Your task to perform on an android device: Open Google Maps and go to "Timeline" Image 0: 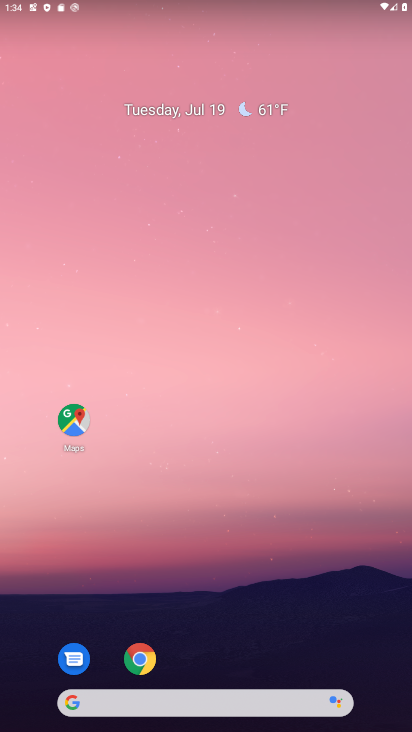
Step 0: drag from (274, 644) to (205, 204)
Your task to perform on an android device: Open Google Maps and go to "Timeline" Image 1: 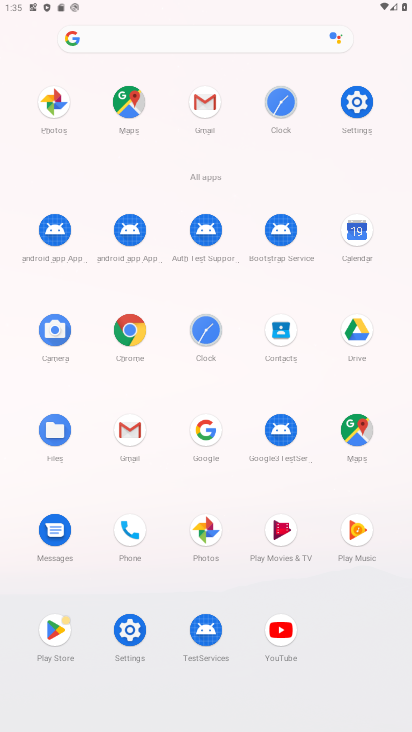
Step 1: click (136, 98)
Your task to perform on an android device: Open Google Maps and go to "Timeline" Image 2: 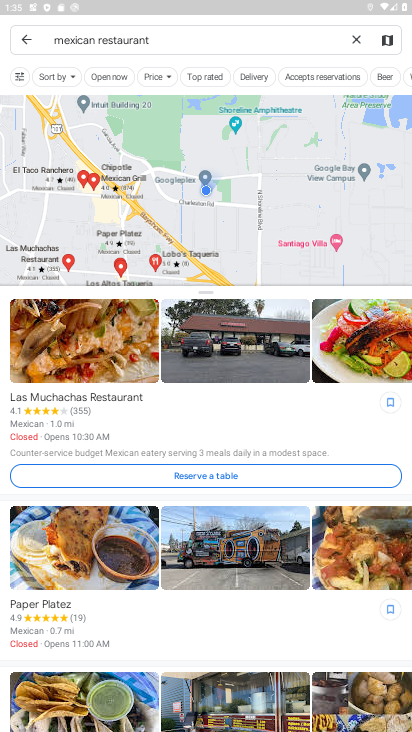
Step 2: click (26, 43)
Your task to perform on an android device: Open Google Maps and go to "Timeline" Image 3: 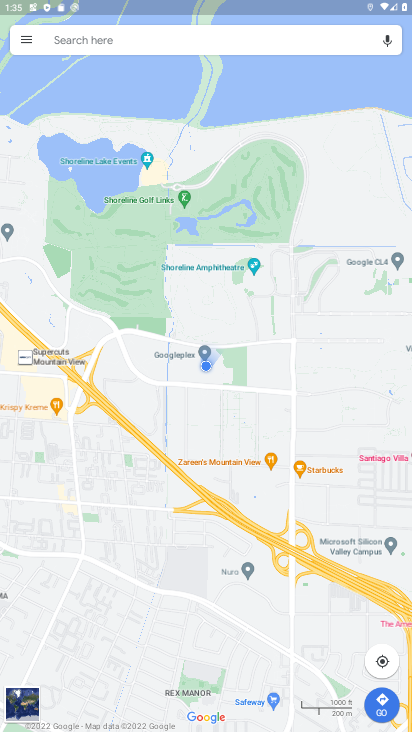
Step 3: click (26, 43)
Your task to perform on an android device: Open Google Maps and go to "Timeline" Image 4: 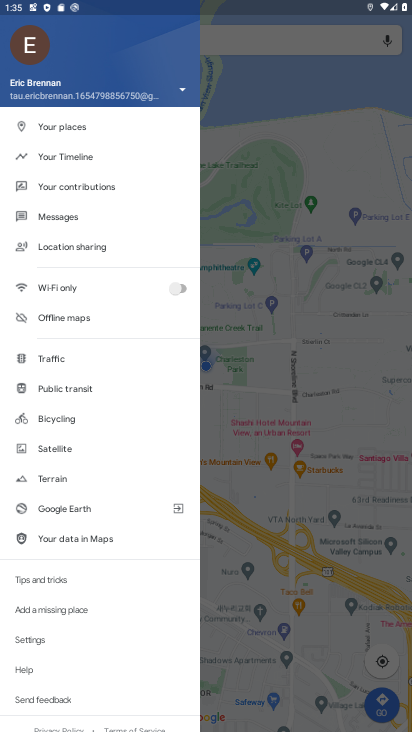
Step 4: click (81, 161)
Your task to perform on an android device: Open Google Maps and go to "Timeline" Image 5: 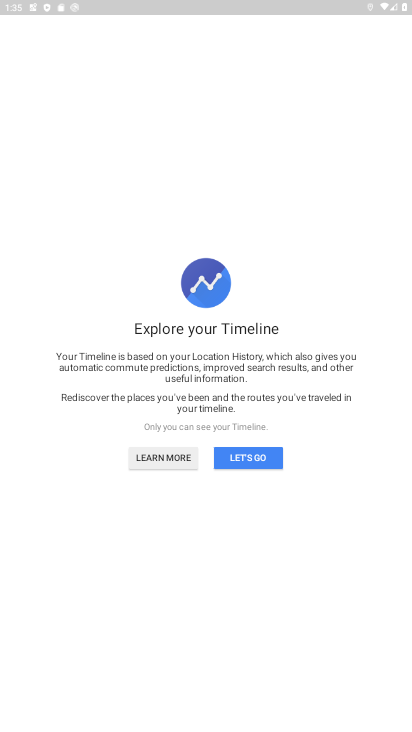
Step 5: click (260, 466)
Your task to perform on an android device: Open Google Maps and go to "Timeline" Image 6: 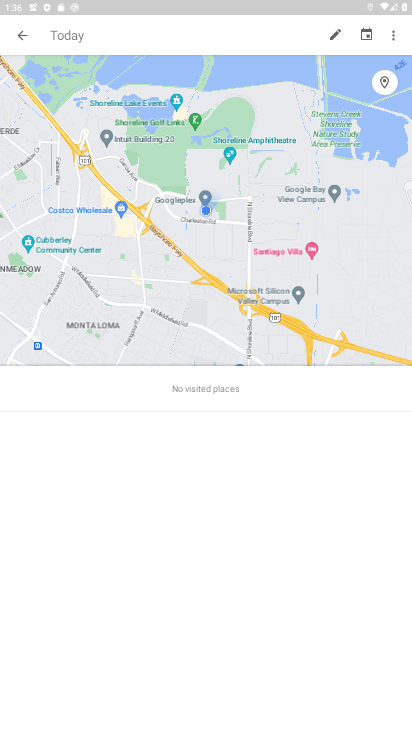
Step 6: task complete